Your task to perform on an android device: Open the stopwatch Image 0: 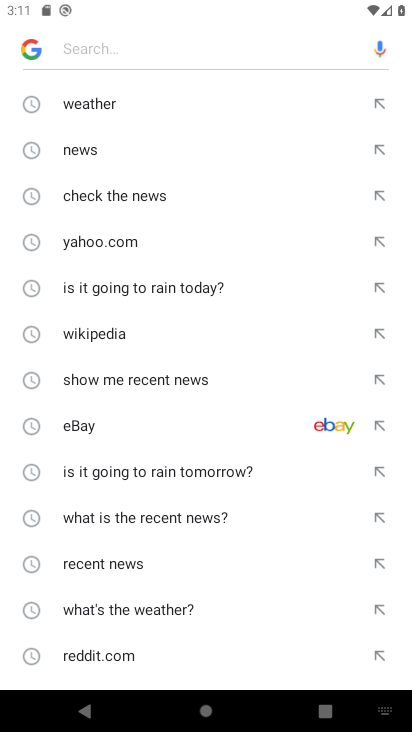
Step 0: press home button
Your task to perform on an android device: Open the stopwatch Image 1: 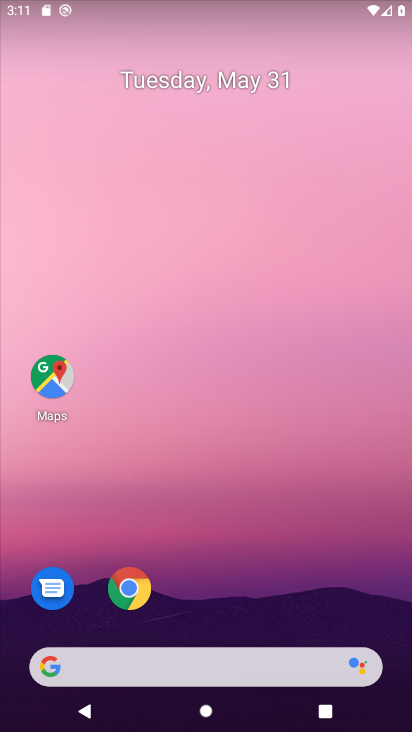
Step 1: drag from (249, 598) to (297, 186)
Your task to perform on an android device: Open the stopwatch Image 2: 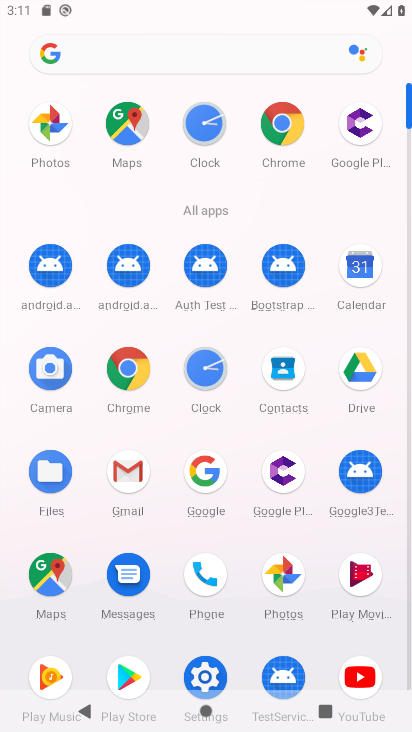
Step 2: click (206, 382)
Your task to perform on an android device: Open the stopwatch Image 3: 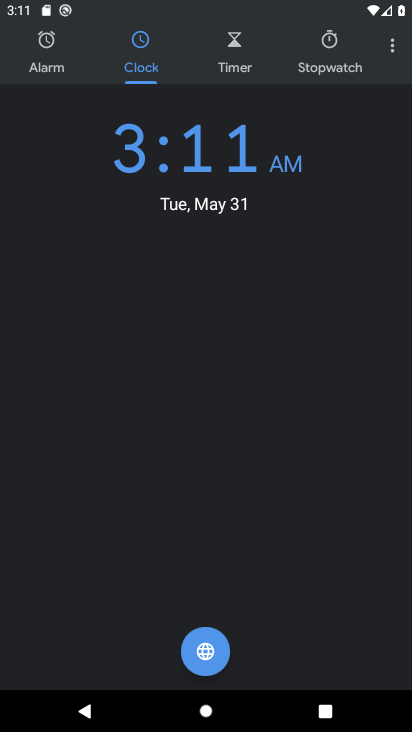
Step 3: click (324, 63)
Your task to perform on an android device: Open the stopwatch Image 4: 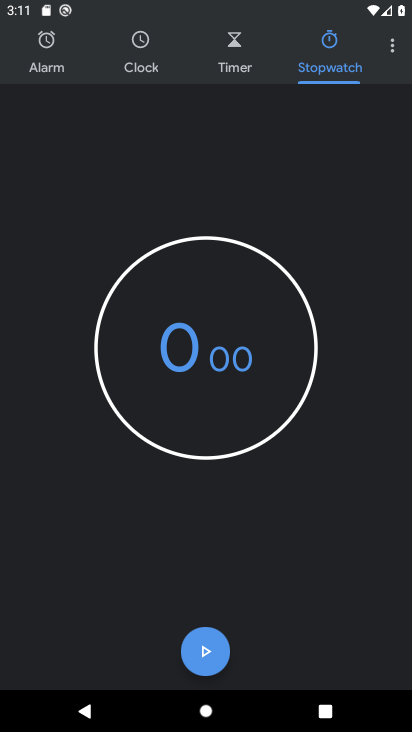
Step 4: click (216, 659)
Your task to perform on an android device: Open the stopwatch Image 5: 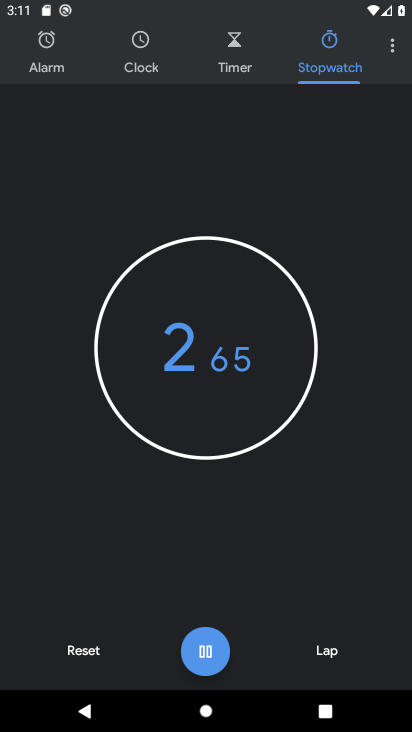
Step 5: task complete